Your task to perform on an android device: toggle pop-ups in chrome Image 0: 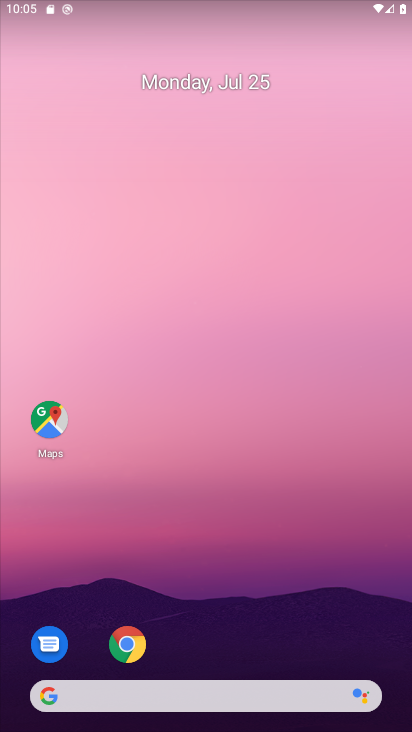
Step 0: click (129, 646)
Your task to perform on an android device: toggle pop-ups in chrome Image 1: 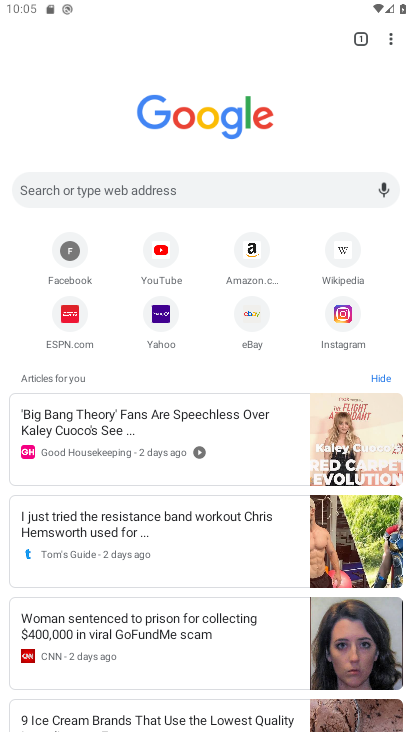
Step 1: click (390, 36)
Your task to perform on an android device: toggle pop-ups in chrome Image 2: 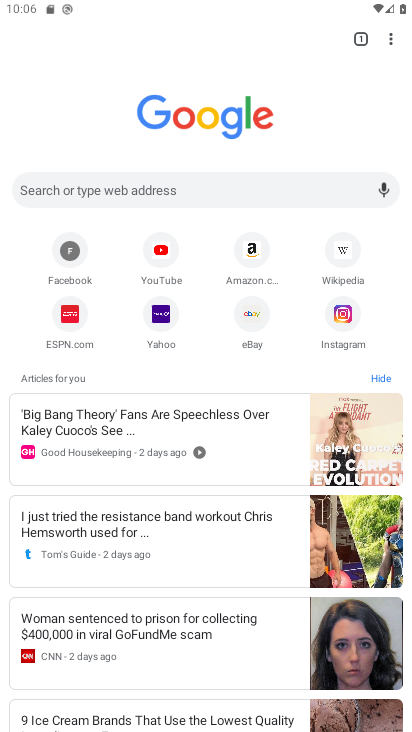
Step 2: click (385, 36)
Your task to perform on an android device: toggle pop-ups in chrome Image 3: 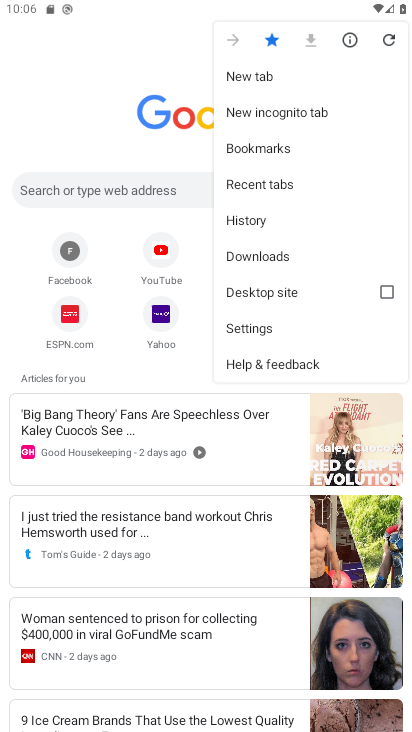
Step 3: click (107, 76)
Your task to perform on an android device: toggle pop-ups in chrome Image 4: 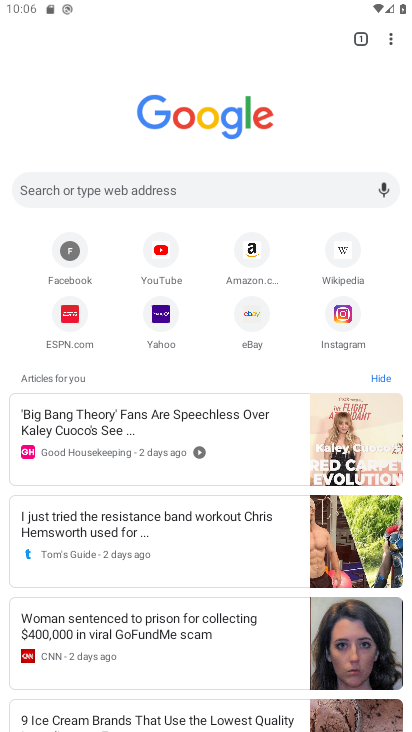
Step 4: click (388, 38)
Your task to perform on an android device: toggle pop-ups in chrome Image 5: 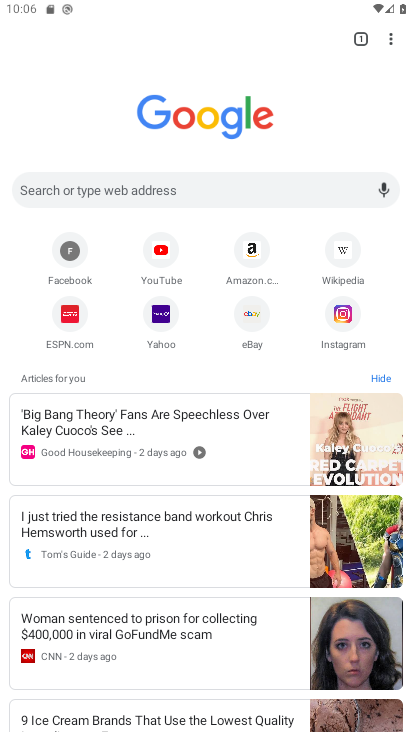
Step 5: click (384, 31)
Your task to perform on an android device: toggle pop-ups in chrome Image 6: 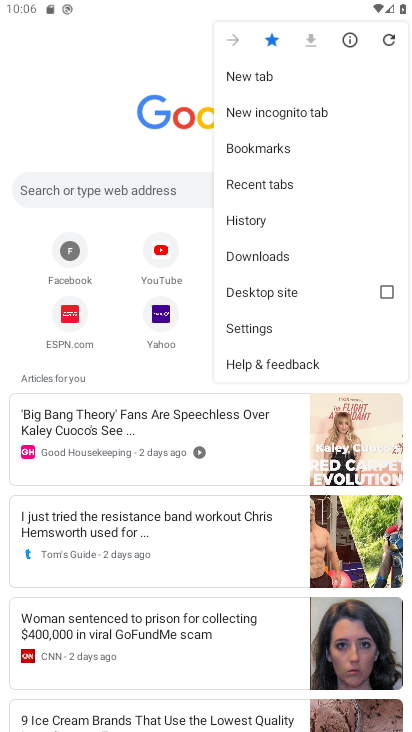
Step 6: click (240, 326)
Your task to perform on an android device: toggle pop-ups in chrome Image 7: 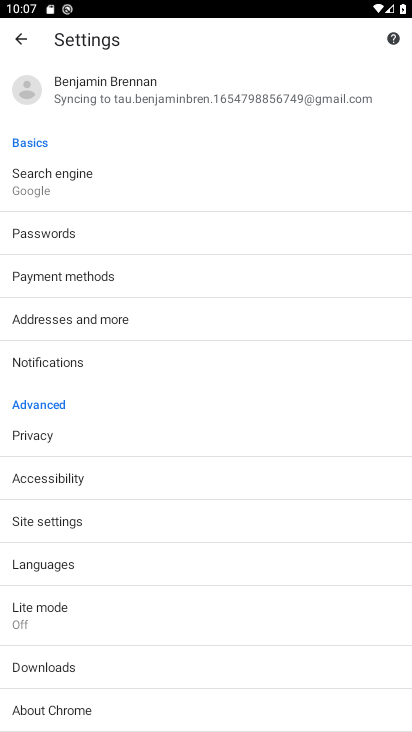
Step 7: click (44, 522)
Your task to perform on an android device: toggle pop-ups in chrome Image 8: 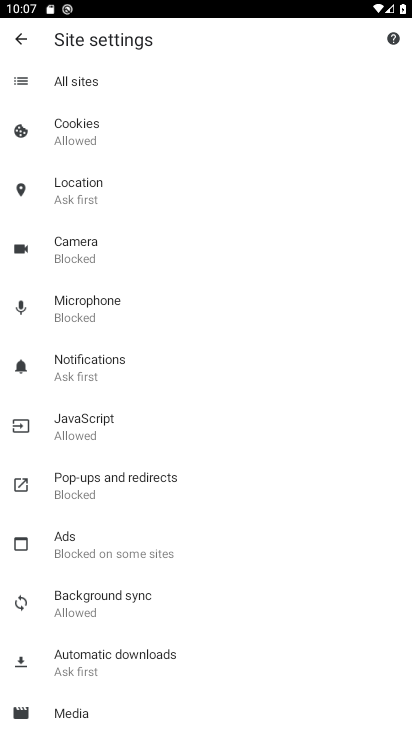
Step 8: click (136, 471)
Your task to perform on an android device: toggle pop-ups in chrome Image 9: 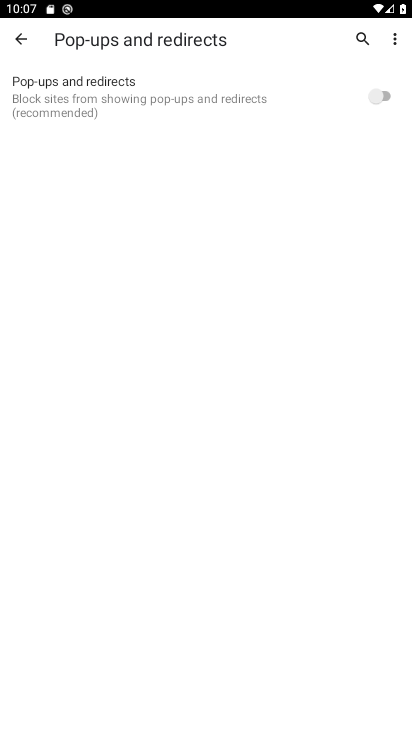
Step 9: click (390, 91)
Your task to perform on an android device: toggle pop-ups in chrome Image 10: 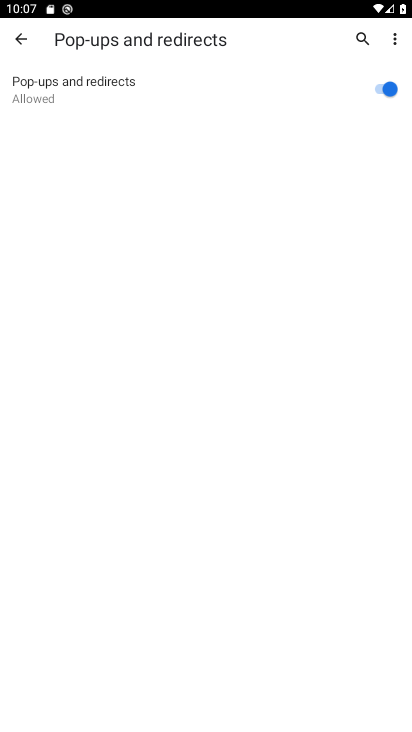
Step 10: task complete